Your task to perform on an android device: Add "bose soundlink mini" to the cart on amazon.com, then select checkout. Image 0: 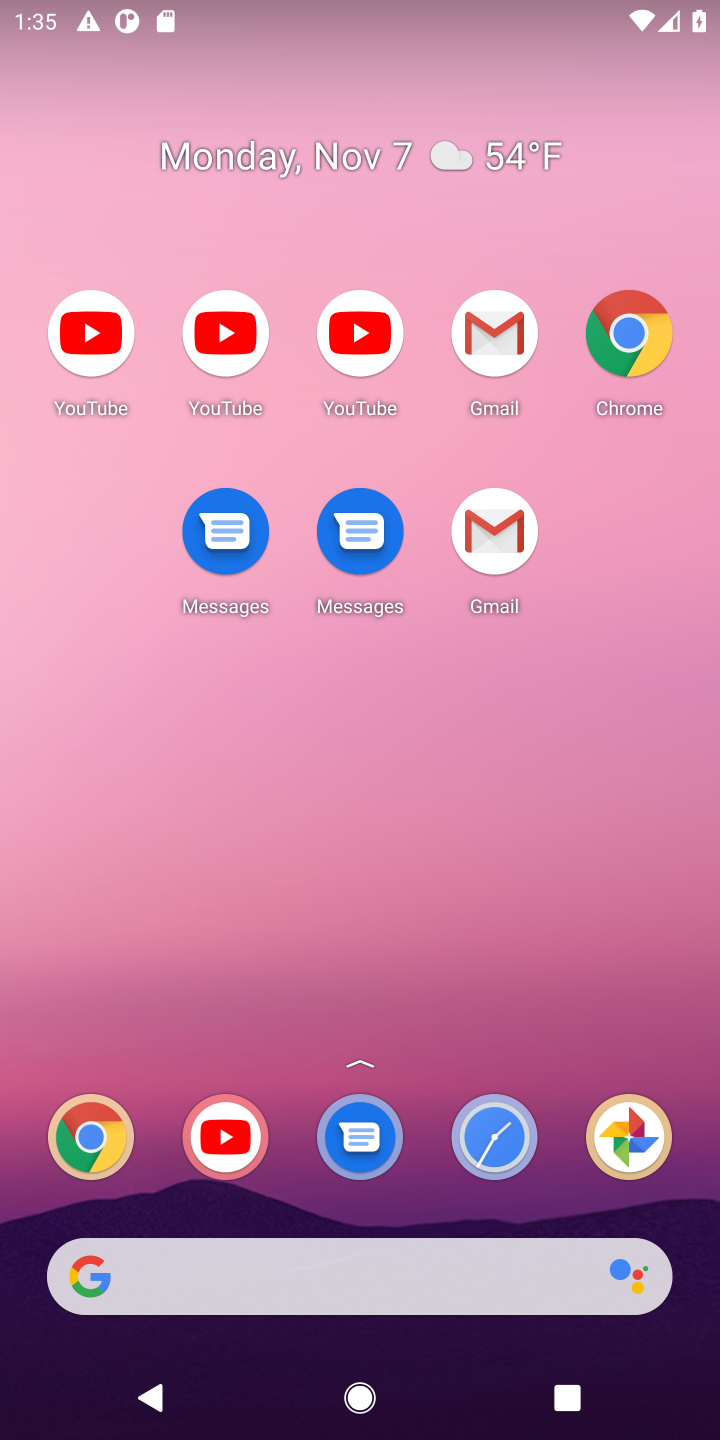
Step 0: drag from (422, 1226) to (290, 70)
Your task to perform on an android device: Add "bose soundlink mini" to the cart on amazon.com, then select checkout. Image 1: 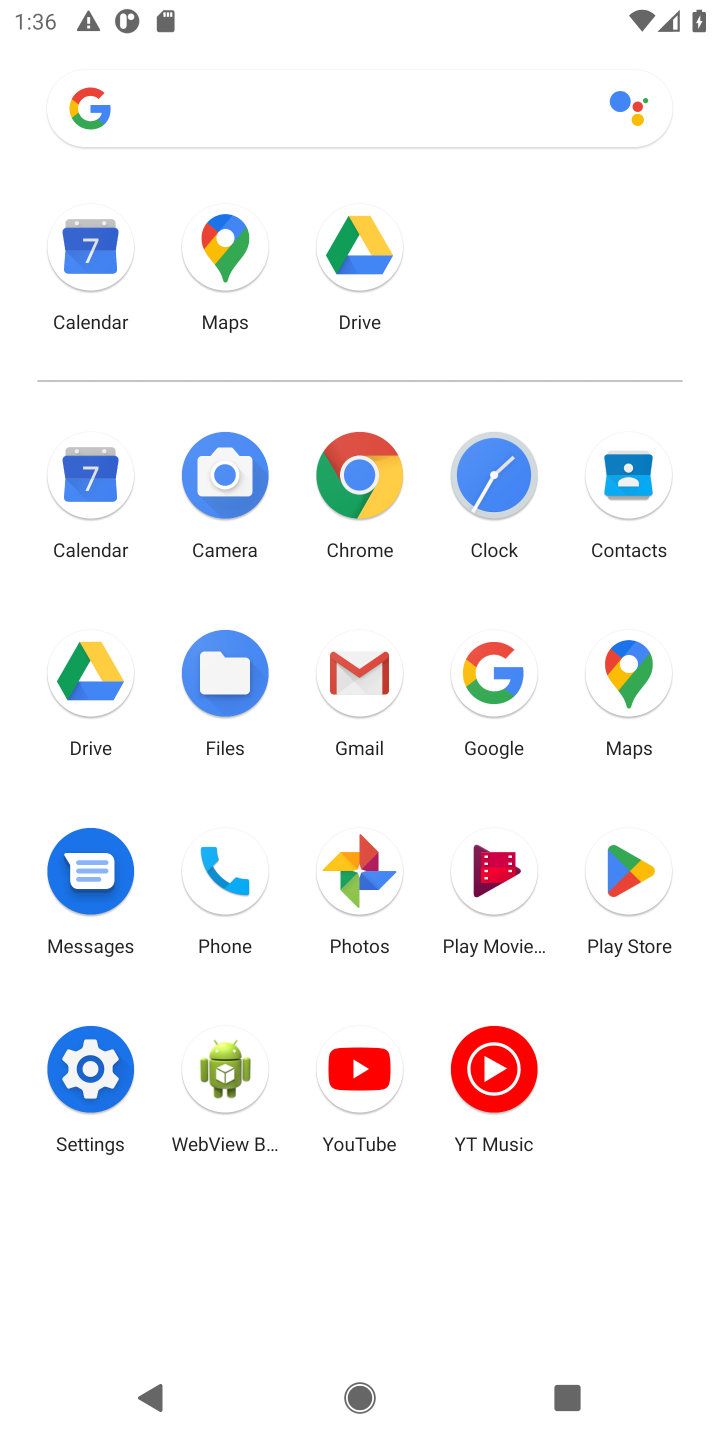
Step 1: click (362, 482)
Your task to perform on an android device: Add "bose soundlink mini" to the cart on amazon.com, then select checkout. Image 2: 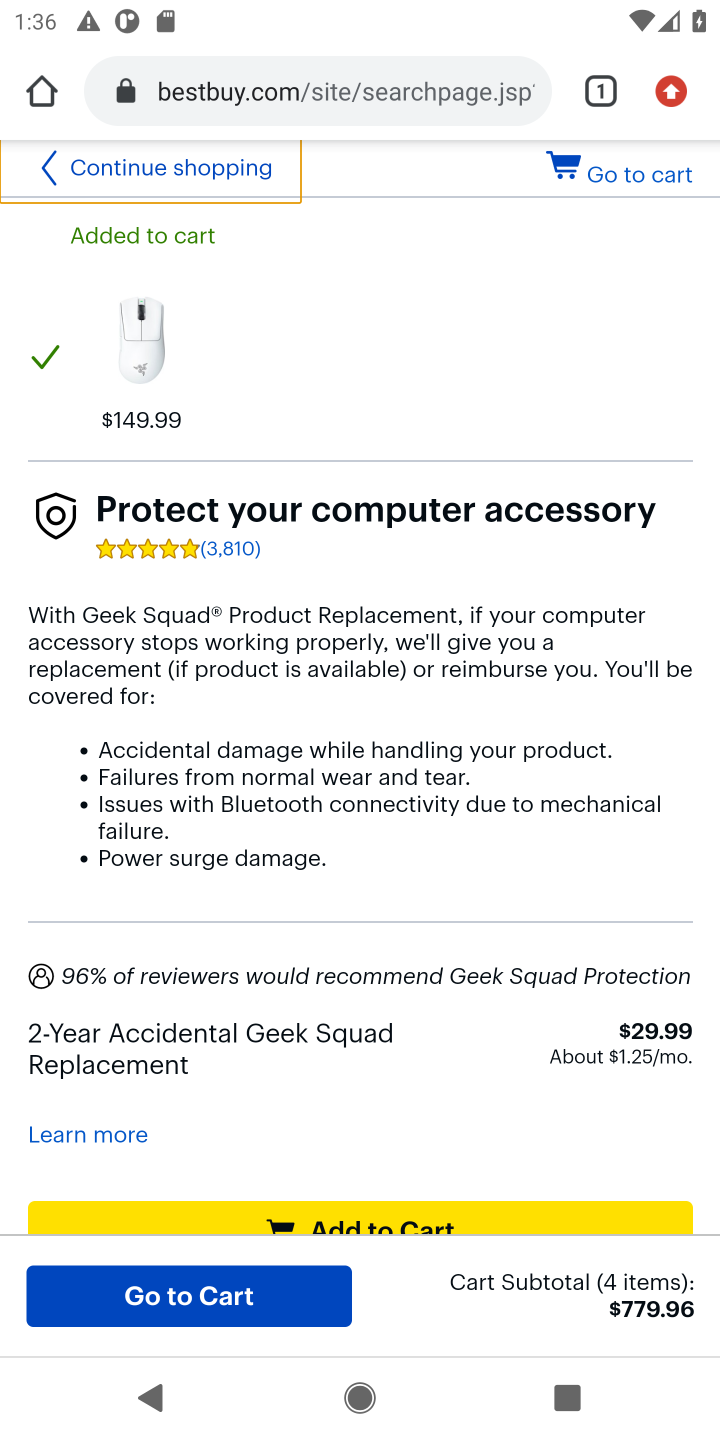
Step 2: click (401, 87)
Your task to perform on an android device: Add "bose soundlink mini" to the cart on amazon.com, then select checkout. Image 3: 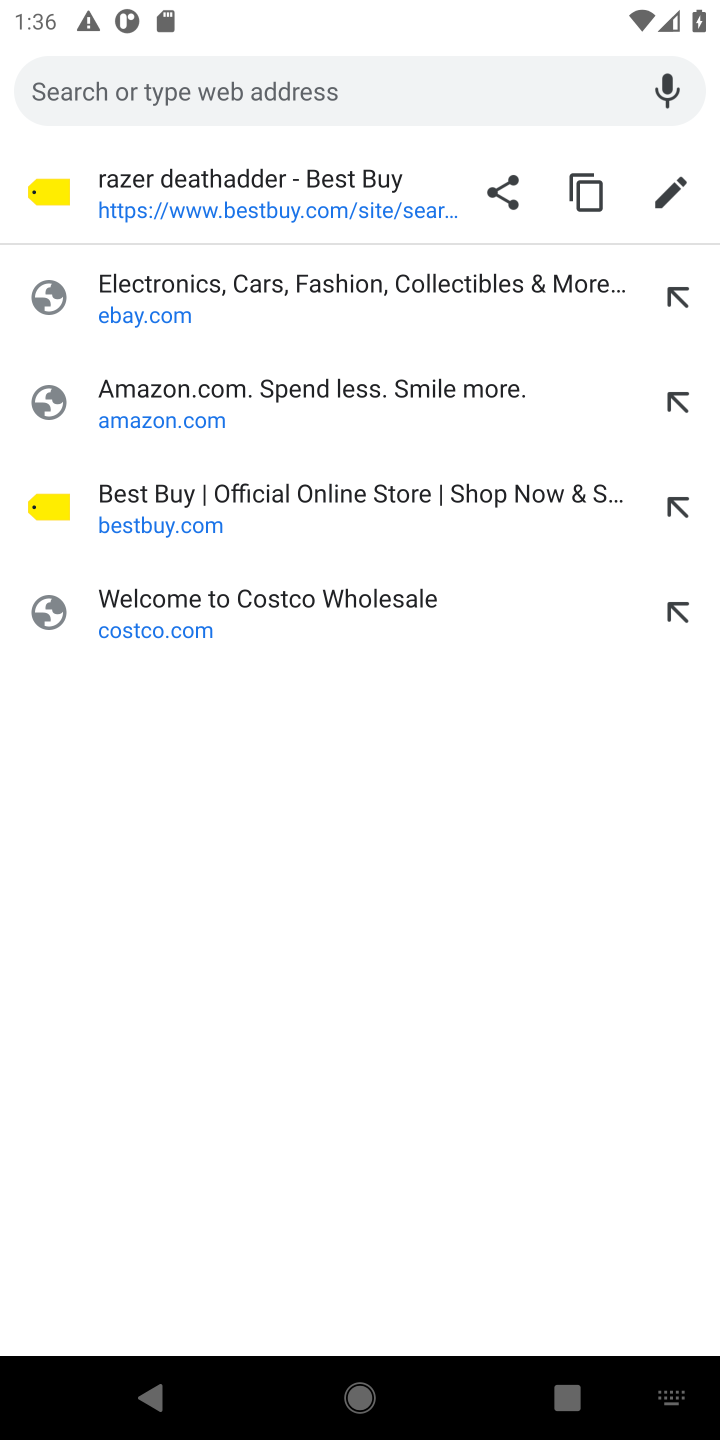
Step 3: click (195, 412)
Your task to perform on an android device: Add "bose soundlink mini" to the cart on amazon.com, then select checkout. Image 4: 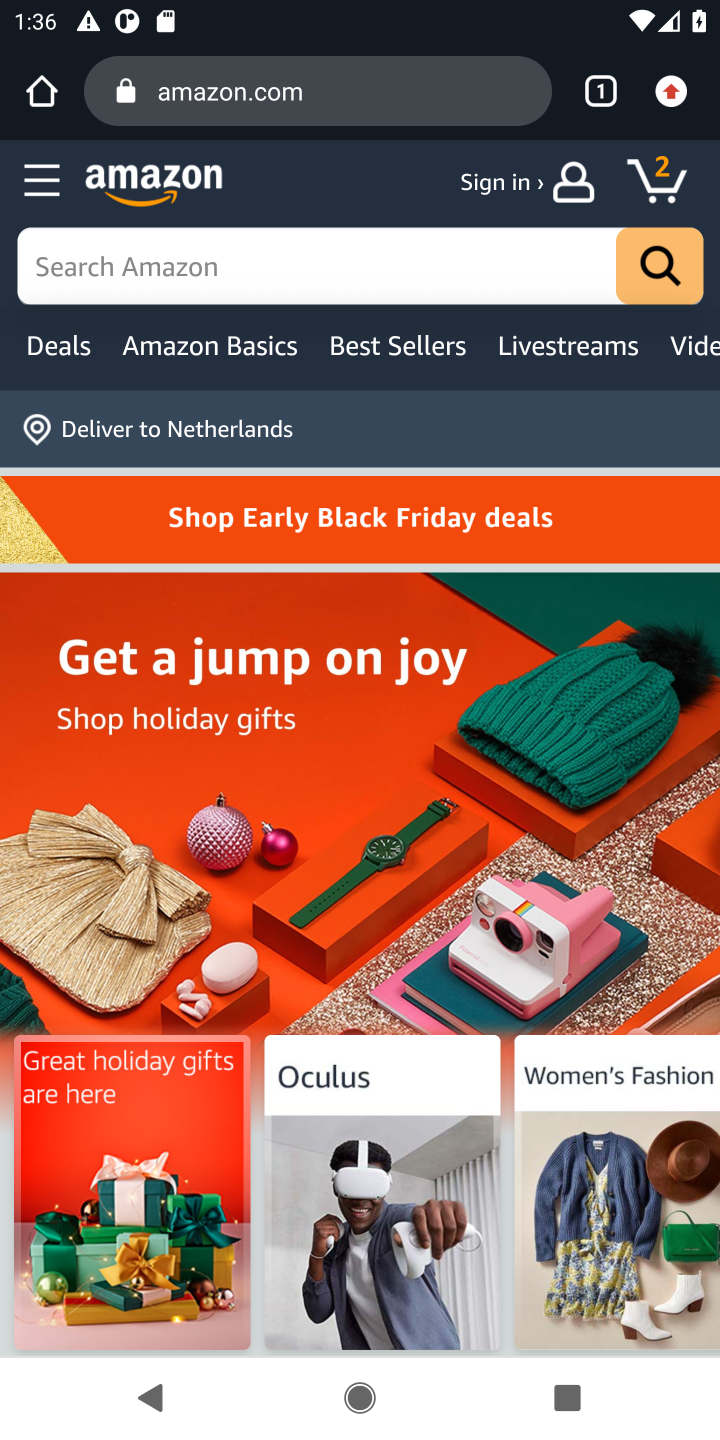
Step 4: click (267, 258)
Your task to perform on an android device: Add "bose soundlink mini" to the cart on amazon.com, then select checkout. Image 5: 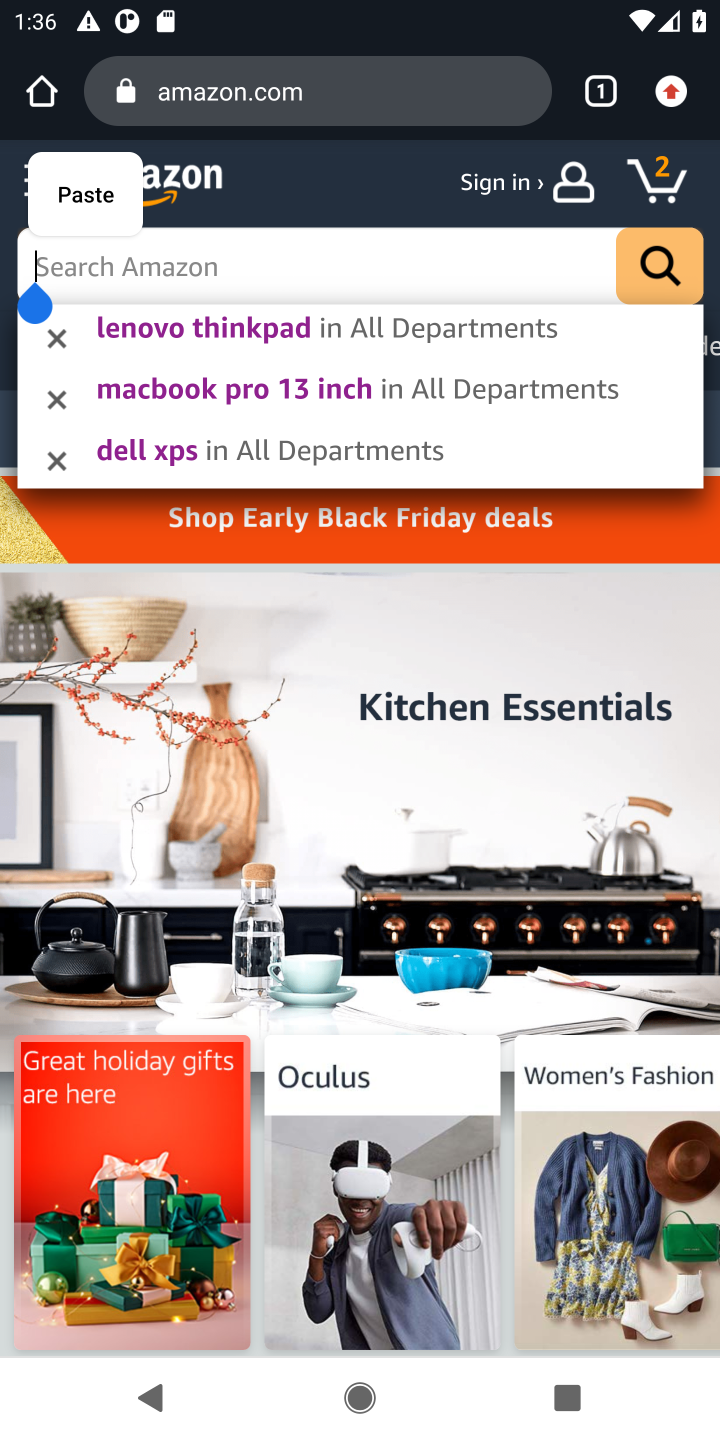
Step 5: type "bose soundlink mini"
Your task to perform on an android device: Add "bose soundlink mini" to the cart on amazon.com, then select checkout. Image 6: 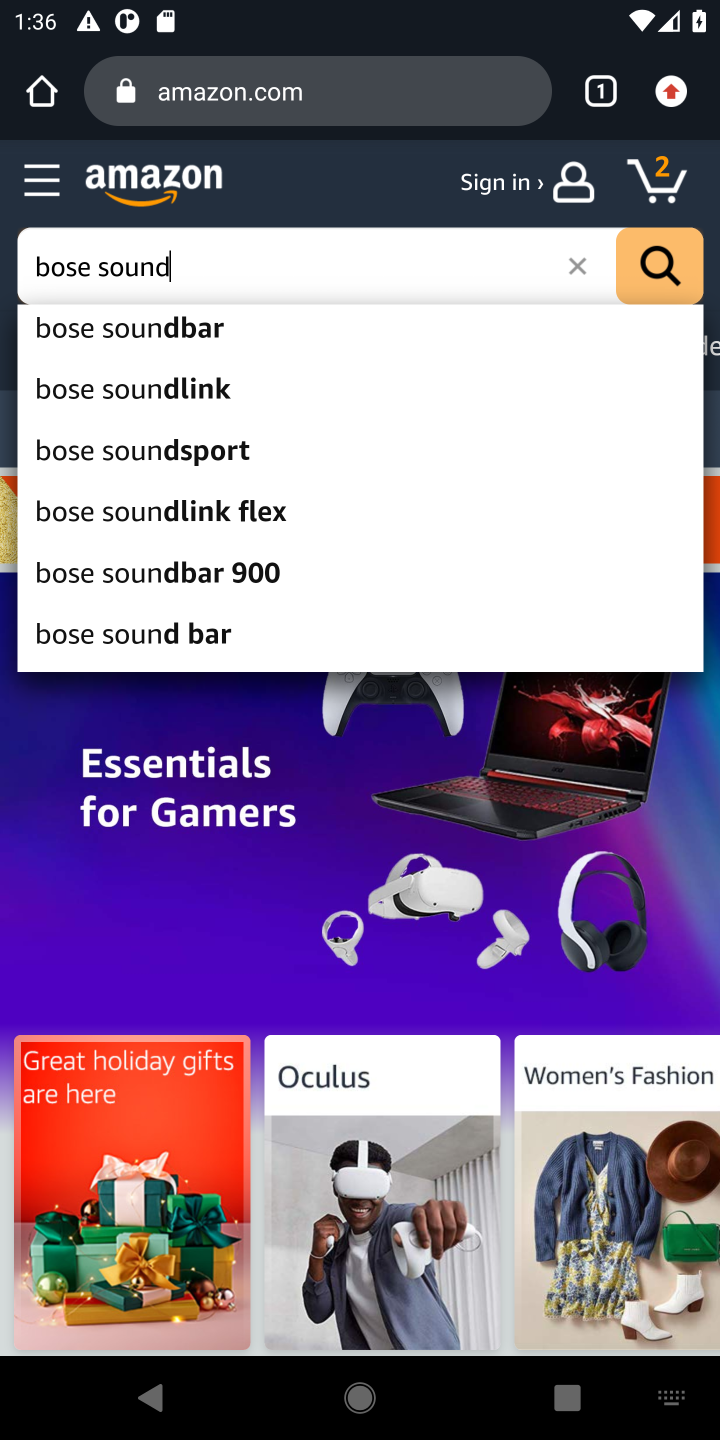
Step 6: press enter
Your task to perform on an android device: Add "bose soundlink mini" to the cart on amazon.com, then select checkout. Image 7: 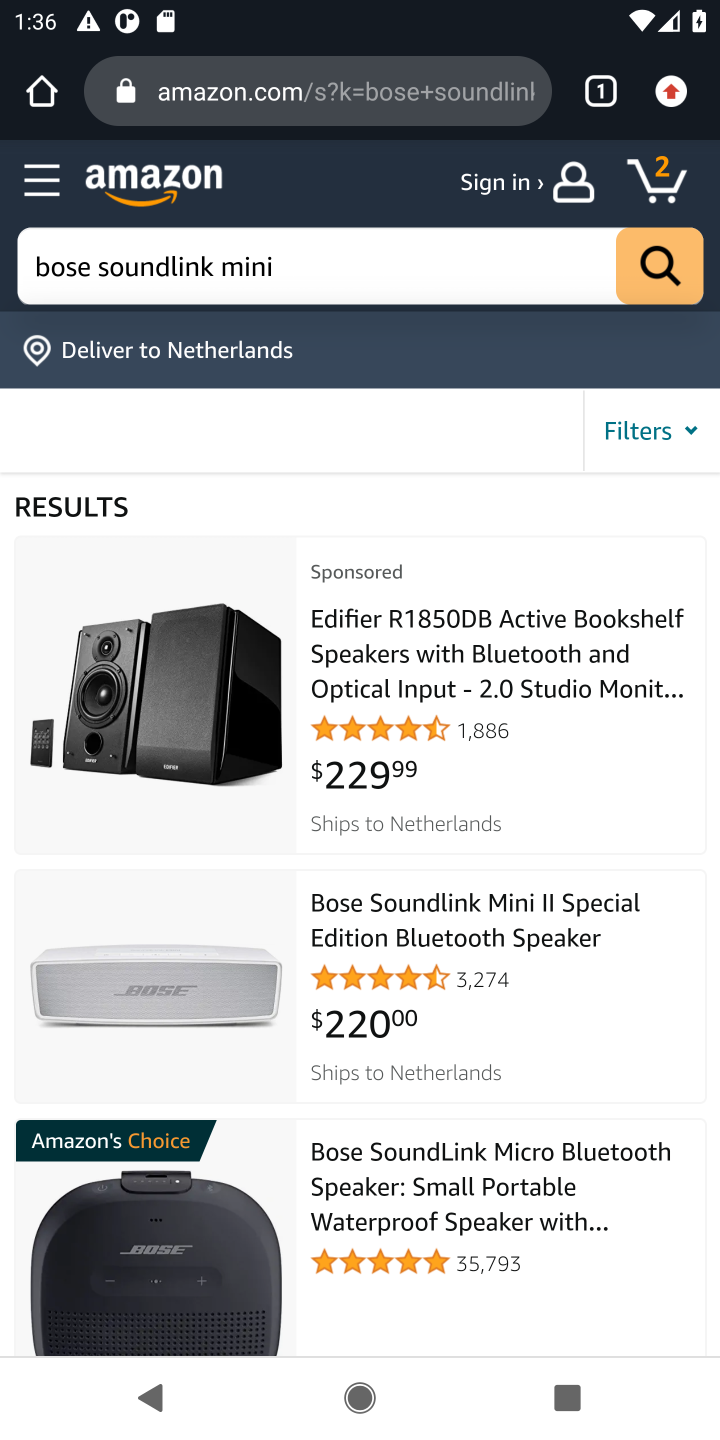
Step 7: click (455, 946)
Your task to perform on an android device: Add "bose soundlink mini" to the cart on amazon.com, then select checkout. Image 8: 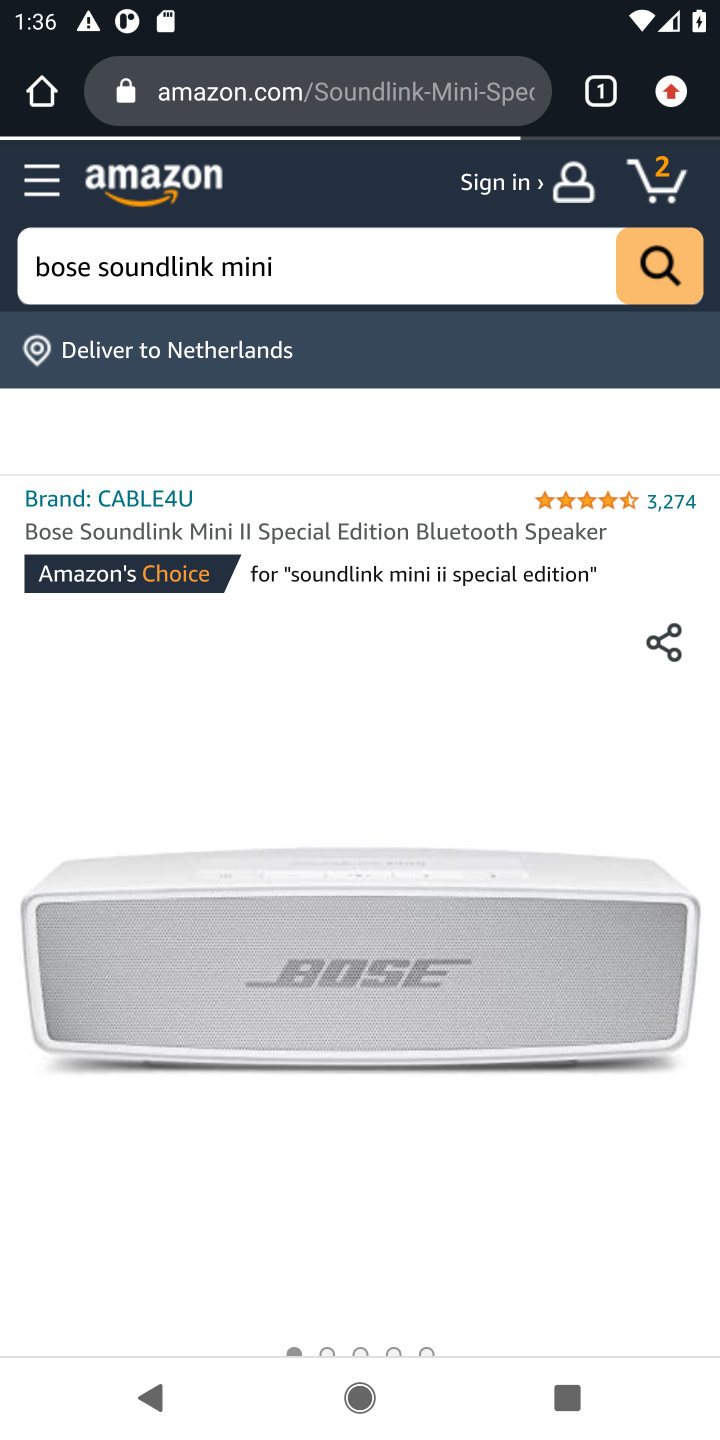
Step 8: drag from (496, 998) to (468, 444)
Your task to perform on an android device: Add "bose soundlink mini" to the cart on amazon.com, then select checkout. Image 9: 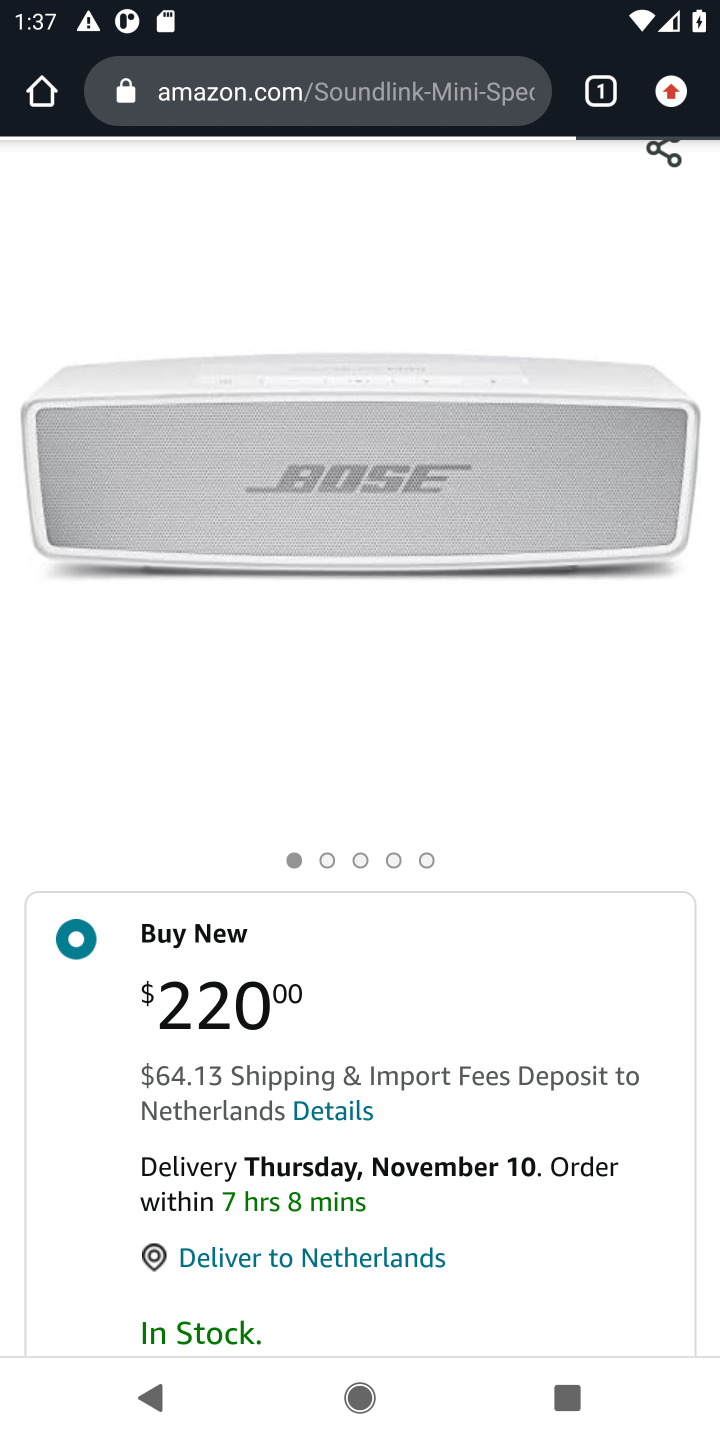
Step 9: drag from (535, 904) to (539, 523)
Your task to perform on an android device: Add "bose soundlink mini" to the cart on amazon.com, then select checkout. Image 10: 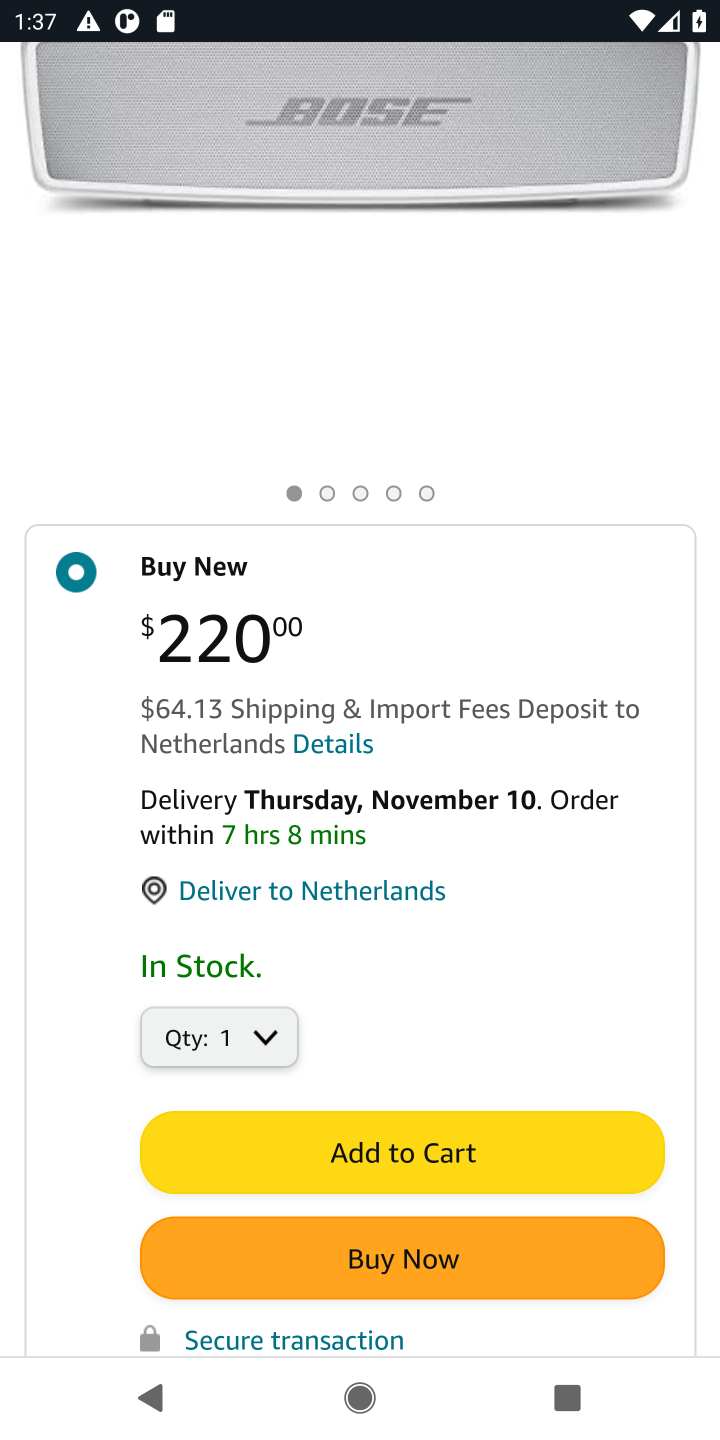
Step 10: click (506, 1150)
Your task to perform on an android device: Add "bose soundlink mini" to the cart on amazon.com, then select checkout. Image 11: 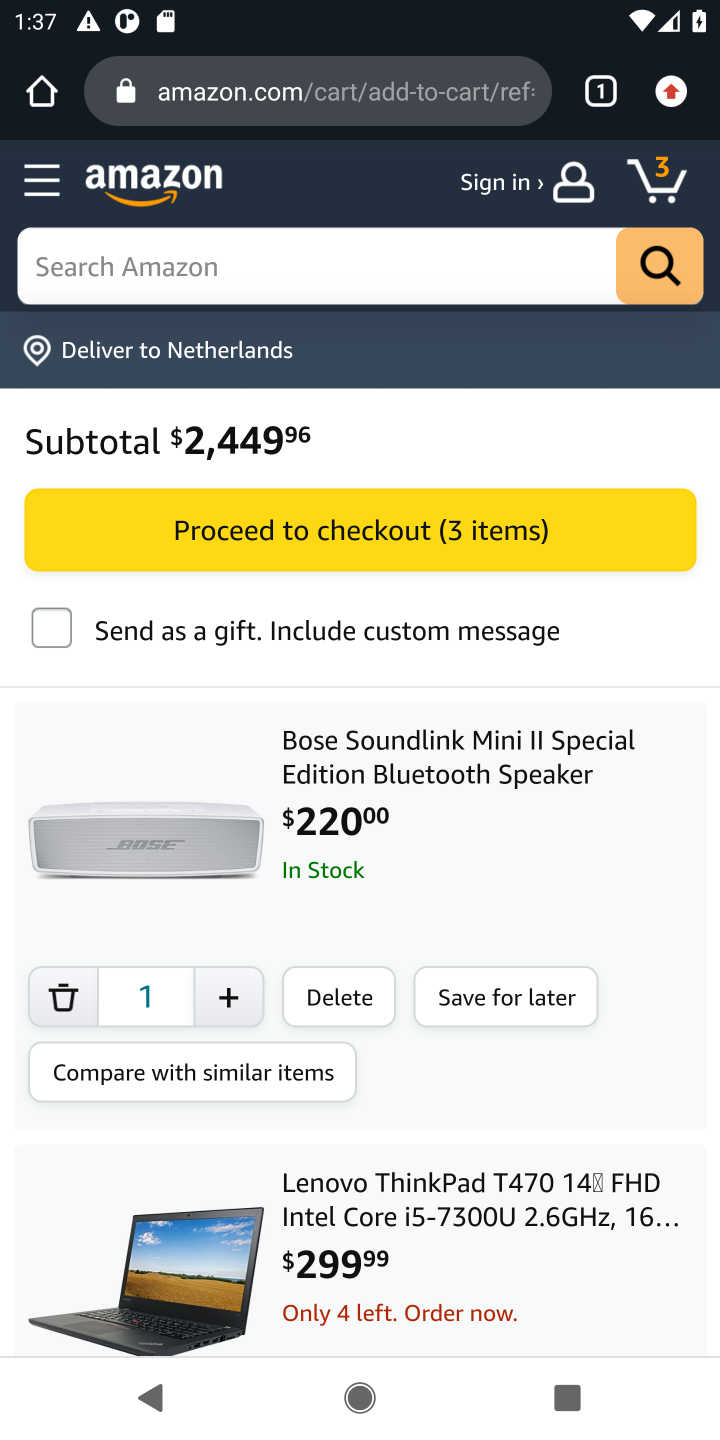
Step 11: task complete